Your task to perform on an android device: Open accessibility settings Image 0: 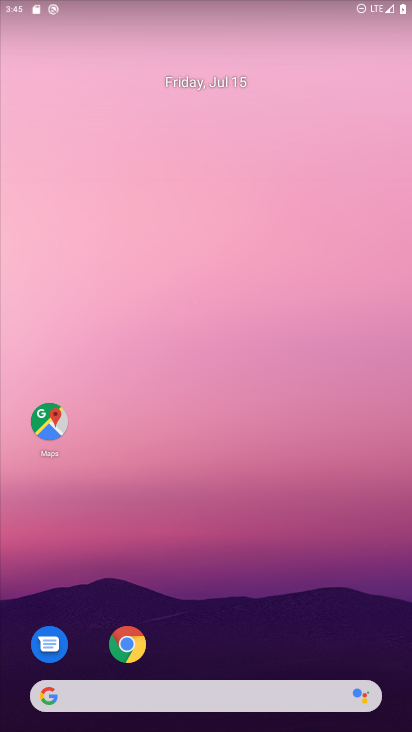
Step 0: drag from (63, 550) to (244, 63)
Your task to perform on an android device: Open accessibility settings Image 1: 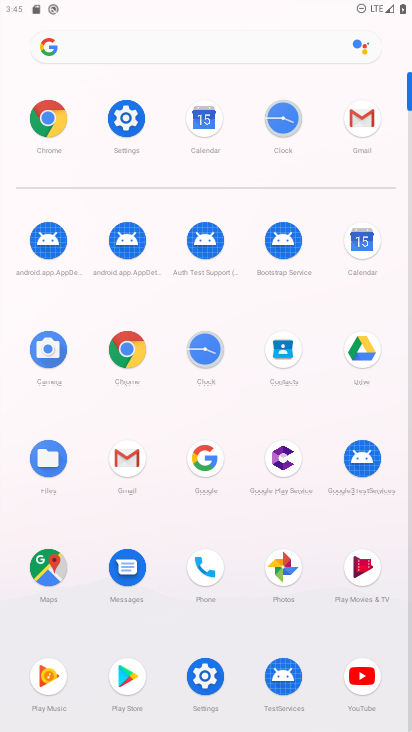
Step 1: click (118, 124)
Your task to perform on an android device: Open accessibility settings Image 2: 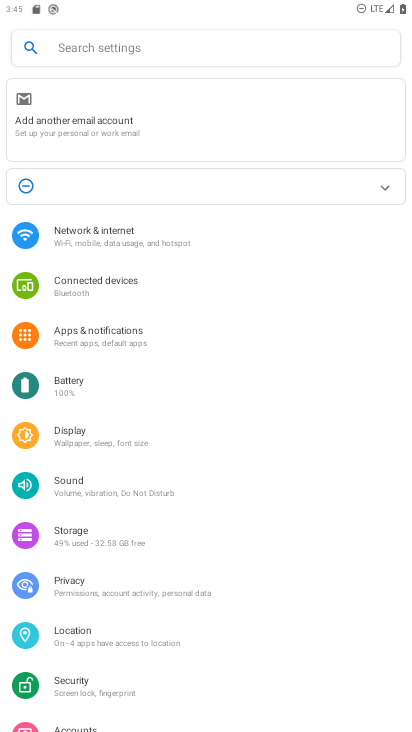
Step 2: drag from (27, 495) to (209, 170)
Your task to perform on an android device: Open accessibility settings Image 3: 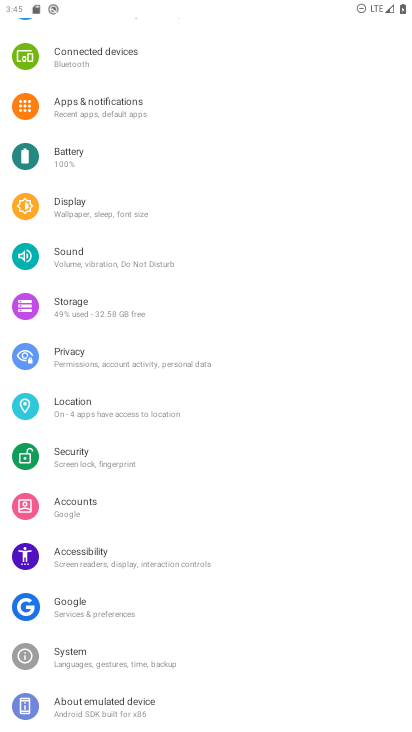
Step 3: click (123, 559)
Your task to perform on an android device: Open accessibility settings Image 4: 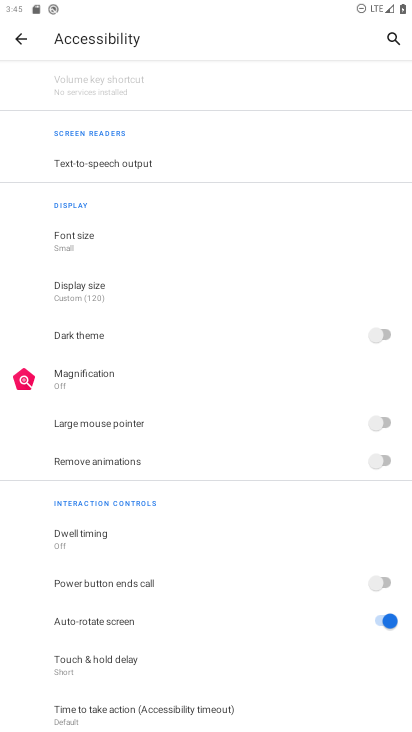
Step 4: task complete